Your task to perform on an android device: Go to internet settings Image 0: 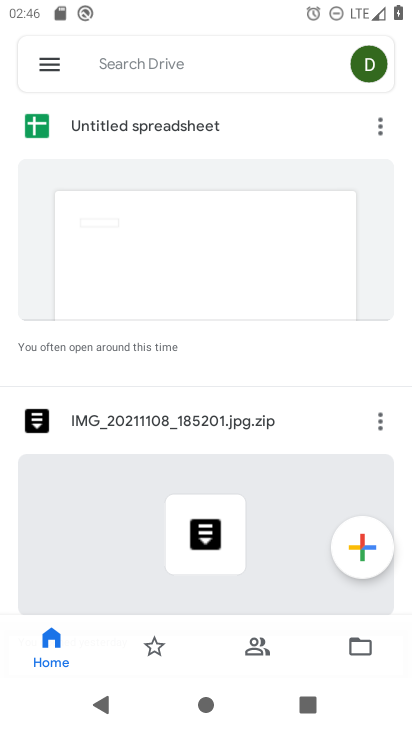
Step 0: press home button
Your task to perform on an android device: Go to internet settings Image 1: 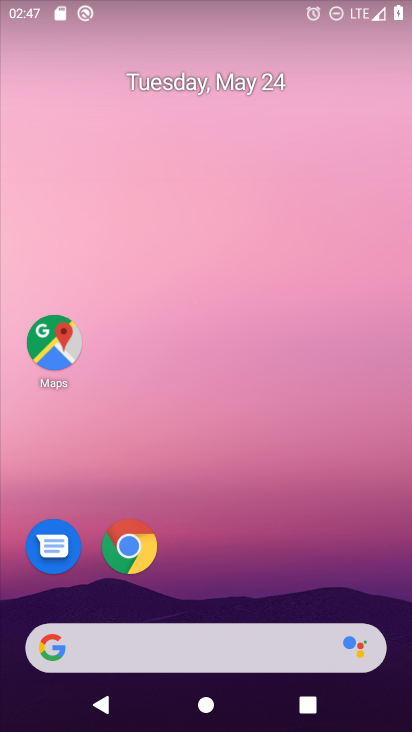
Step 1: drag from (217, 684) to (305, 51)
Your task to perform on an android device: Go to internet settings Image 2: 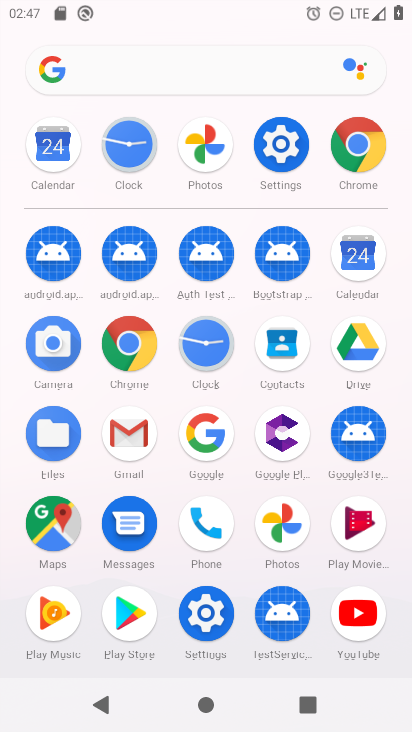
Step 2: click (291, 142)
Your task to perform on an android device: Go to internet settings Image 3: 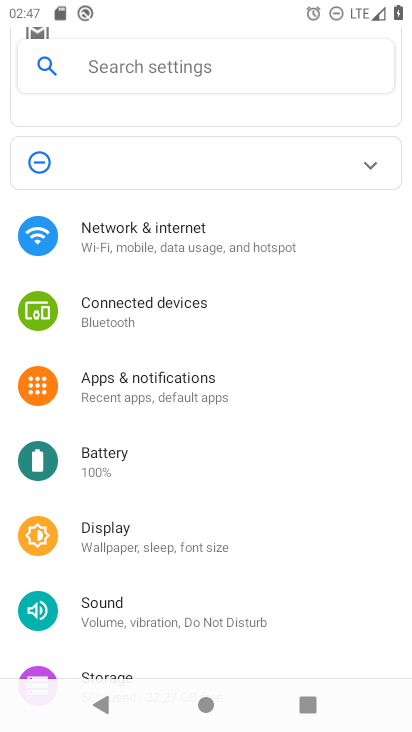
Step 3: click (172, 255)
Your task to perform on an android device: Go to internet settings Image 4: 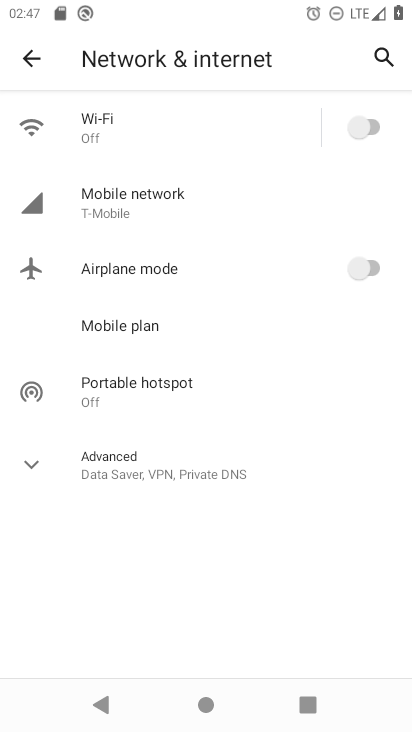
Step 4: task complete